Your task to perform on an android device: delete browsing data in the chrome app Image 0: 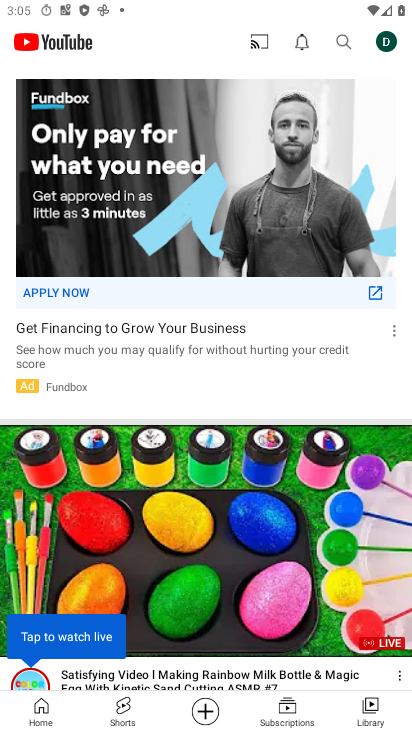
Step 0: press home button
Your task to perform on an android device: delete browsing data in the chrome app Image 1: 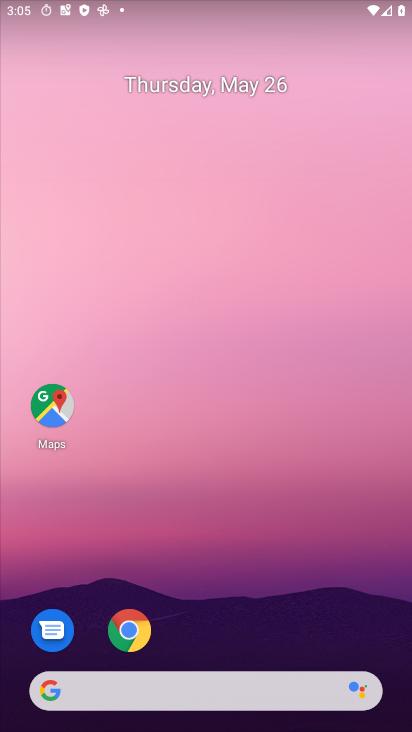
Step 1: click (119, 633)
Your task to perform on an android device: delete browsing data in the chrome app Image 2: 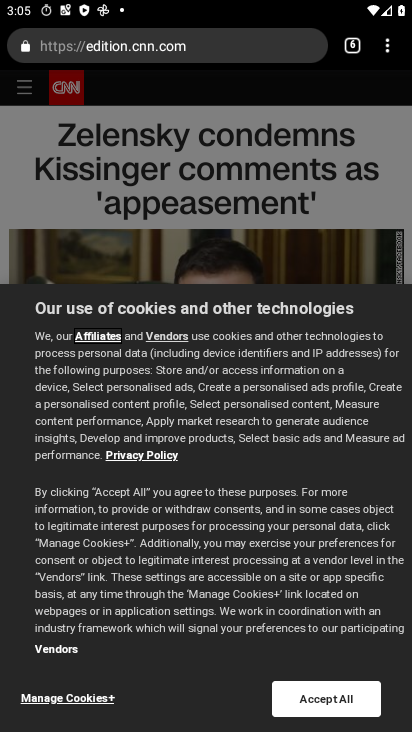
Step 2: click (377, 43)
Your task to perform on an android device: delete browsing data in the chrome app Image 3: 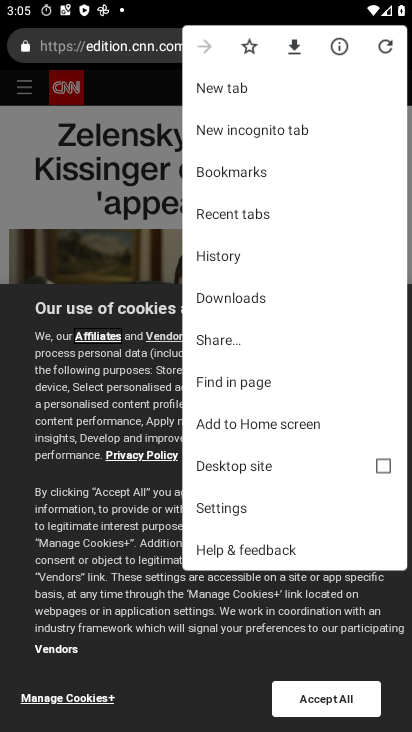
Step 3: click (273, 516)
Your task to perform on an android device: delete browsing data in the chrome app Image 4: 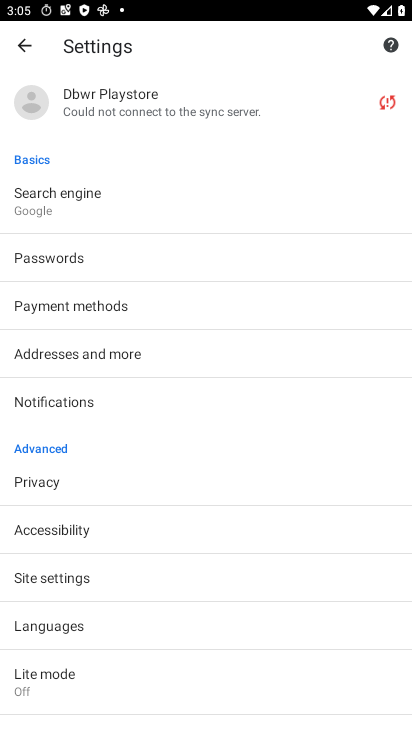
Step 4: click (154, 475)
Your task to perform on an android device: delete browsing data in the chrome app Image 5: 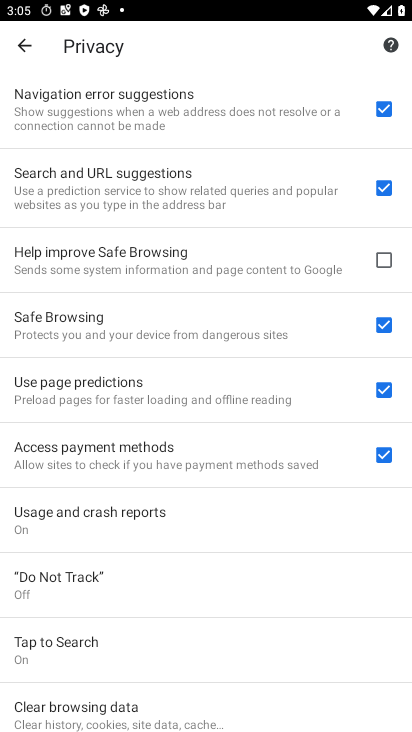
Step 5: click (159, 718)
Your task to perform on an android device: delete browsing data in the chrome app Image 6: 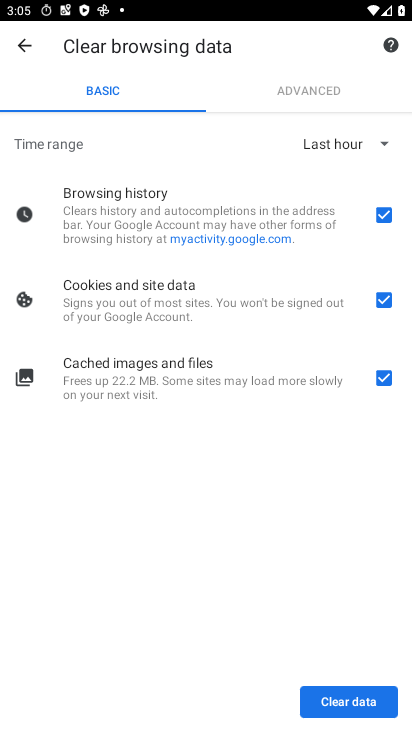
Step 6: click (375, 295)
Your task to perform on an android device: delete browsing data in the chrome app Image 7: 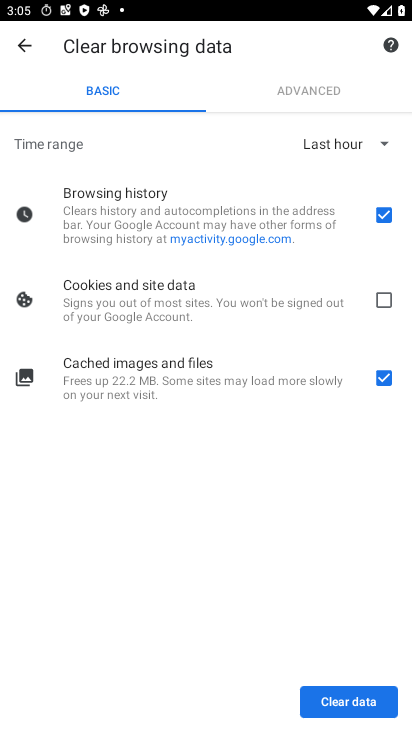
Step 7: click (381, 377)
Your task to perform on an android device: delete browsing data in the chrome app Image 8: 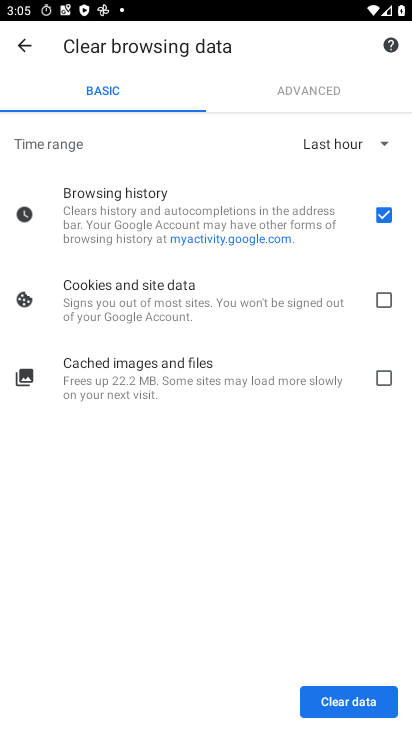
Step 8: click (382, 708)
Your task to perform on an android device: delete browsing data in the chrome app Image 9: 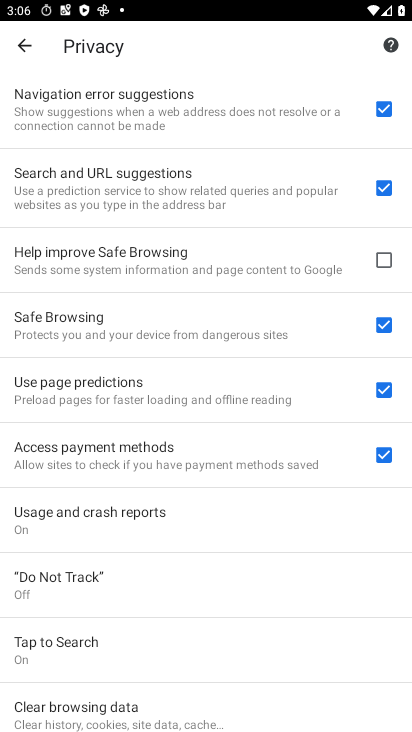
Step 9: task complete